Your task to perform on an android device: Clear all items from cart on newegg. Add bose soundsport free to the cart on newegg, then select checkout. Image 0: 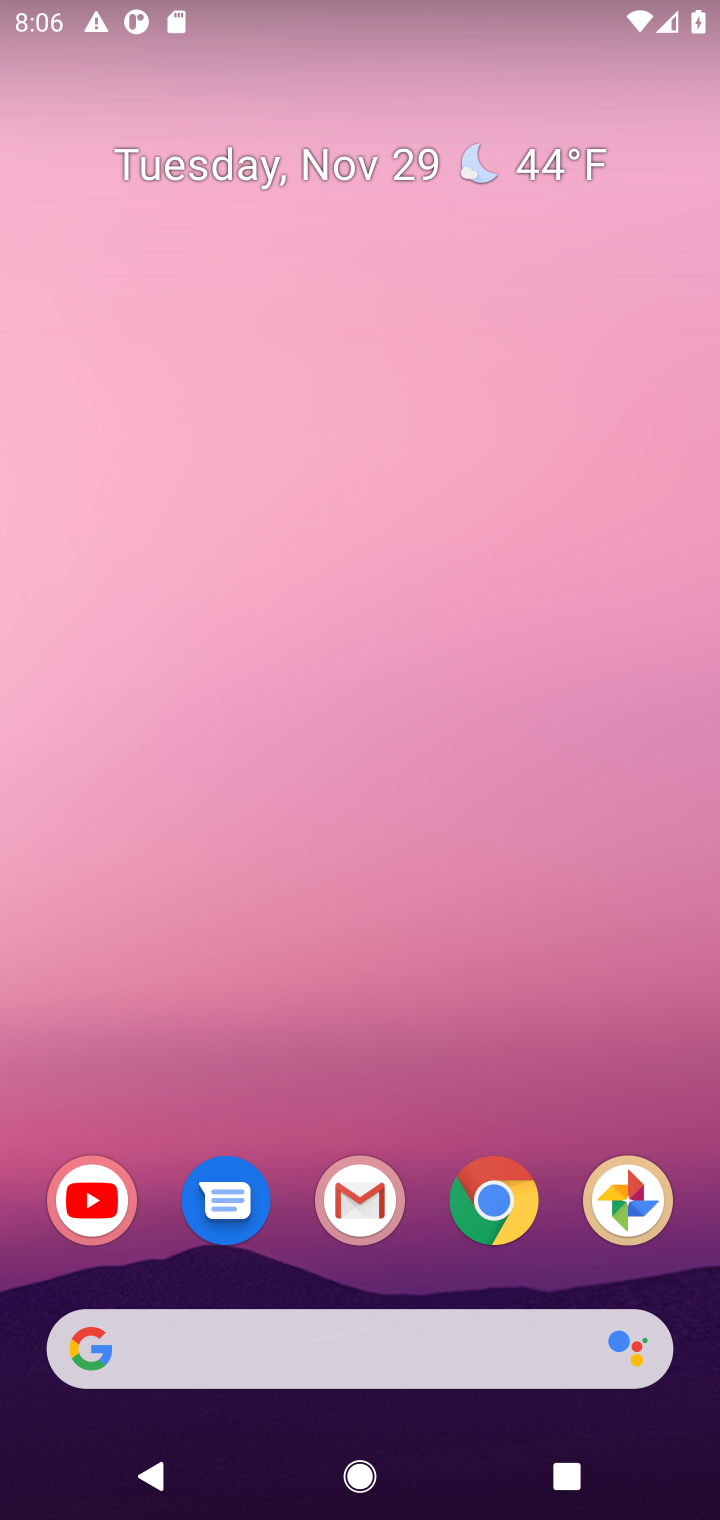
Step 0: click (335, 1370)
Your task to perform on an android device: Clear all items from cart on newegg. Add bose soundsport free to the cart on newegg, then select checkout. Image 1: 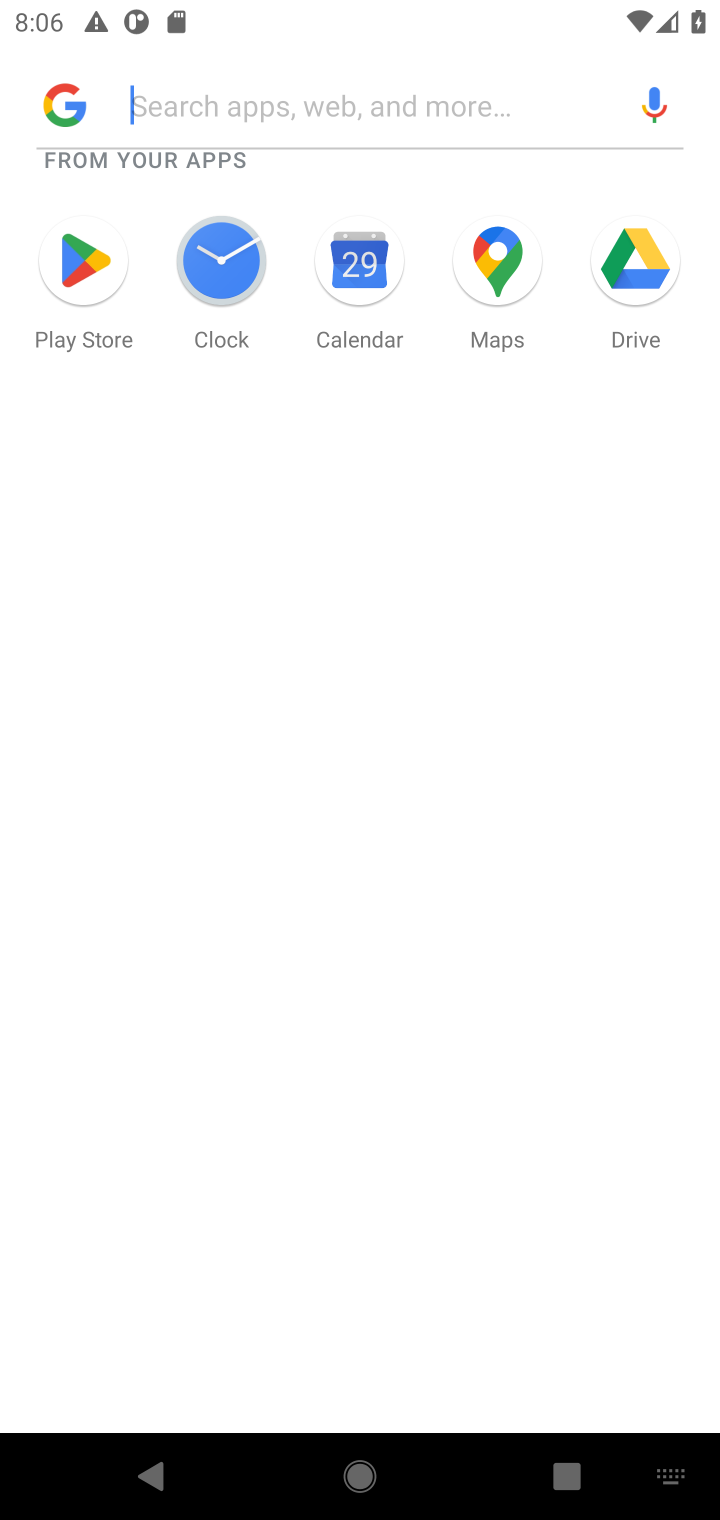
Step 1: press home button
Your task to perform on an android device: Clear all items from cart on newegg. Add bose soundsport free to the cart on newegg, then select checkout. Image 2: 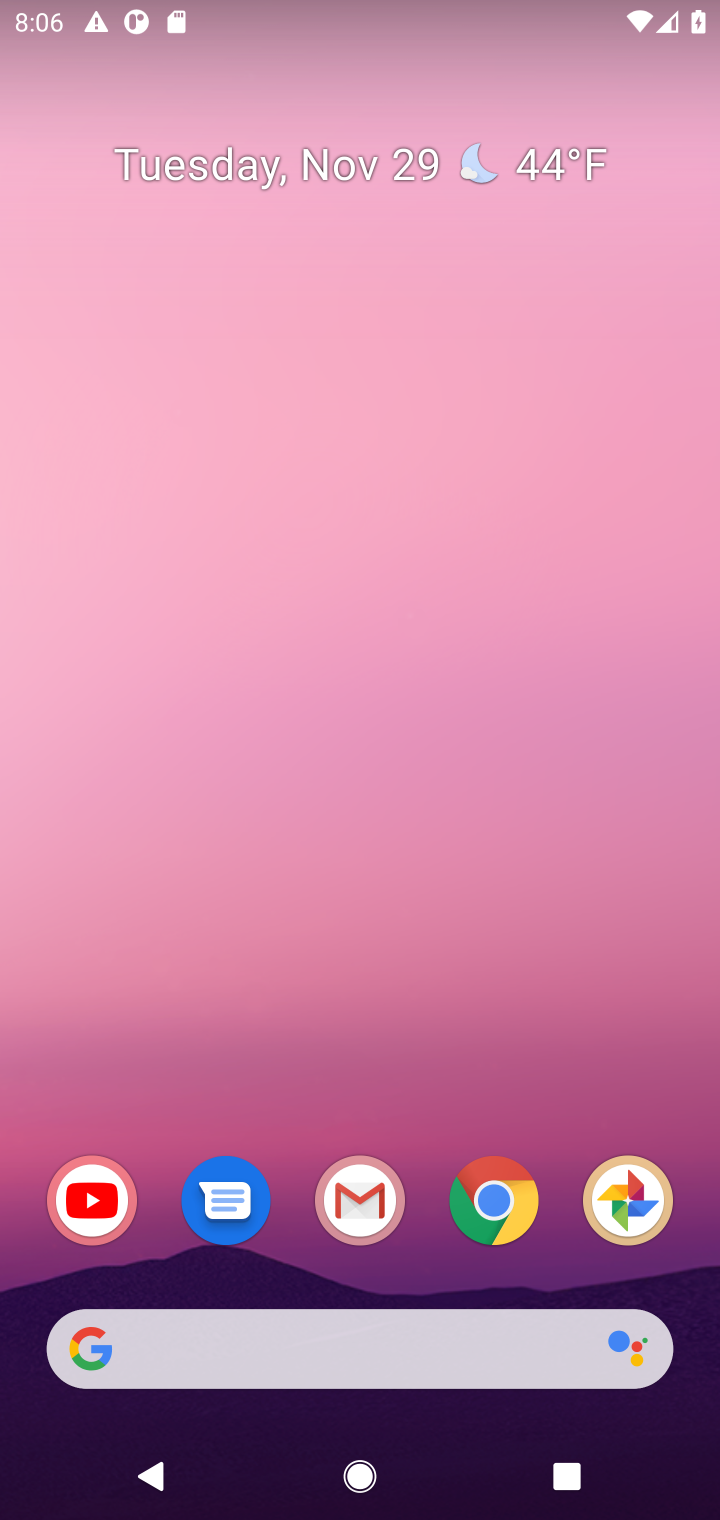
Step 2: click (502, 1216)
Your task to perform on an android device: Clear all items from cart on newegg. Add bose soundsport free to the cart on newegg, then select checkout. Image 3: 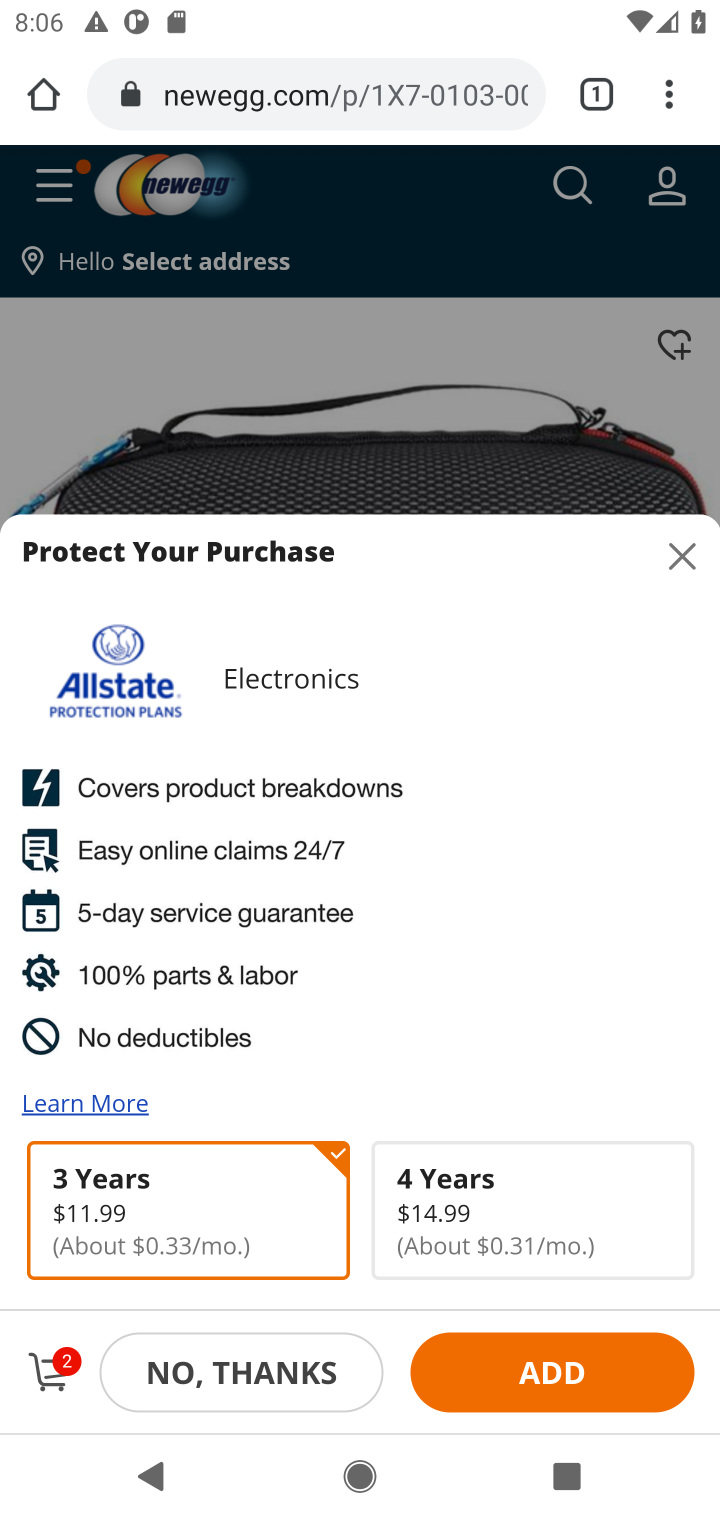
Step 3: click (671, 572)
Your task to perform on an android device: Clear all items from cart on newegg. Add bose soundsport free to the cart on newegg, then select checkout. Image 4: 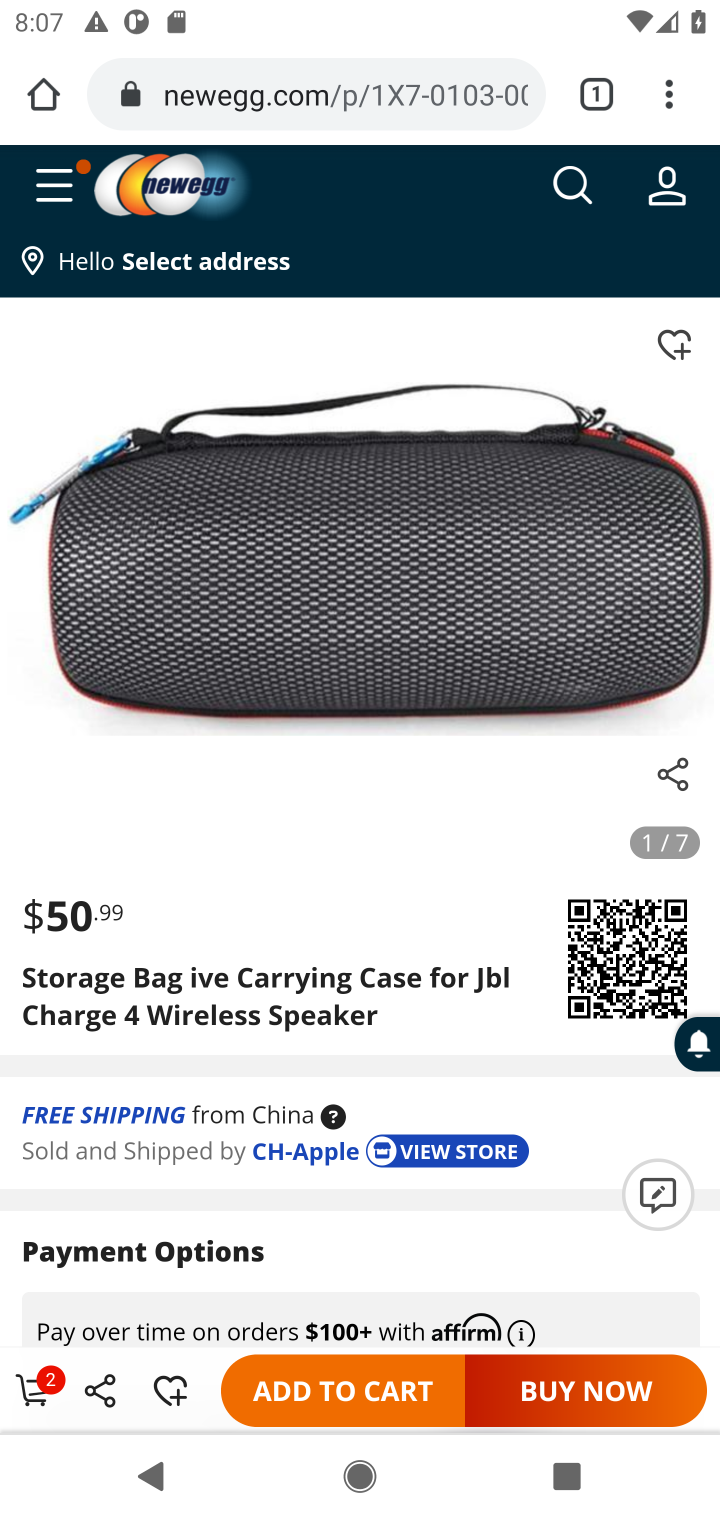
Step 4: click (574, 186)
Your task to perform on an android device: Clear all items from cart on newegg. Add bose soundsport free to the cart on newegg, then select checkout. Image 5: 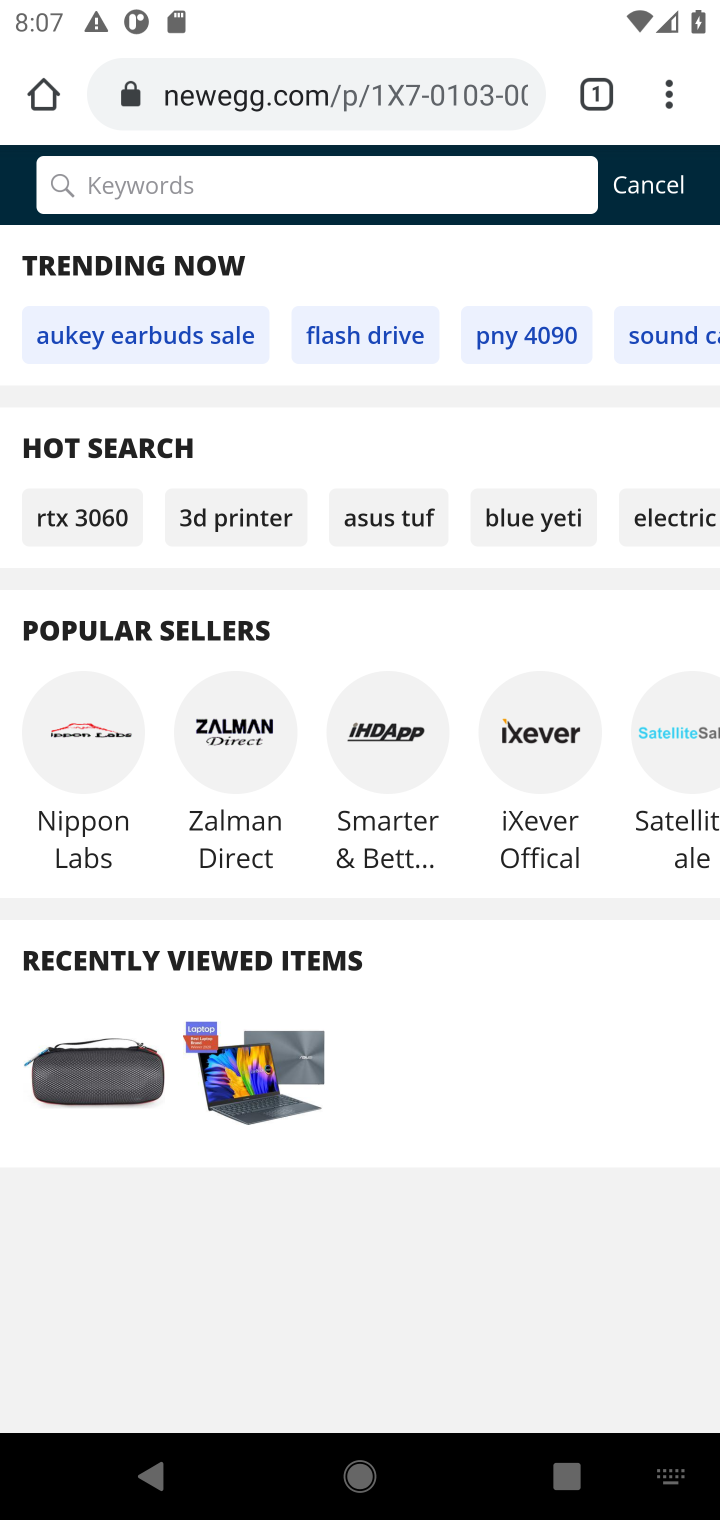
Step 5: type "newegg.com"
Your task to perform on an android device: Clear all items from cart on newegg. Add bose soundsport free to the cart on newegg, then select checkout. Image 6: 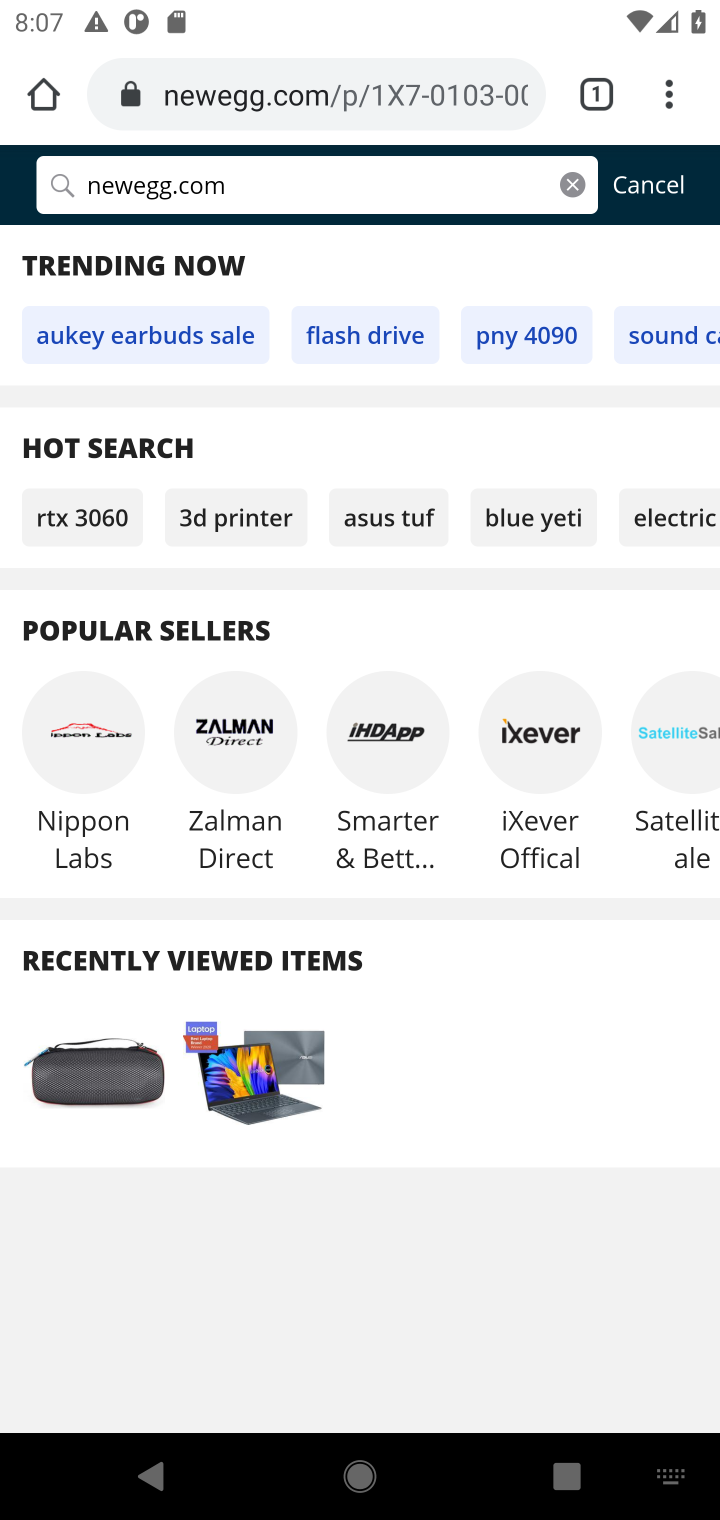
Step 6: click (565, 183)
Your task to perform on an android device: Clear all items from cart on newegg. Add bose soundsport free to the cart on newegg, then select checkout. Image 7: 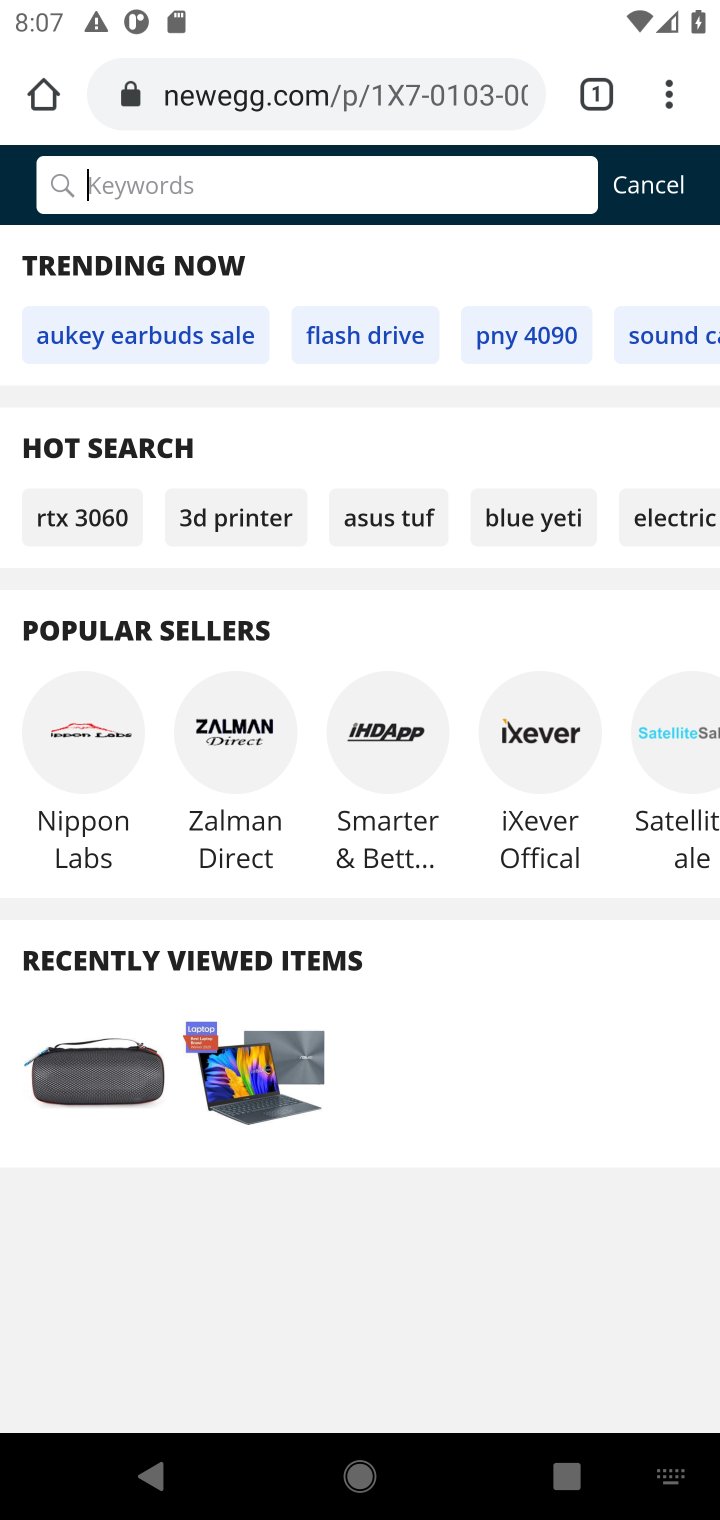
Step 7: type "bose soundsports"
Your task to perform on an android device: Clear all items from cart on newegg. Add bose soundsport free to the cart on newegg, then select checkout. Image 8: 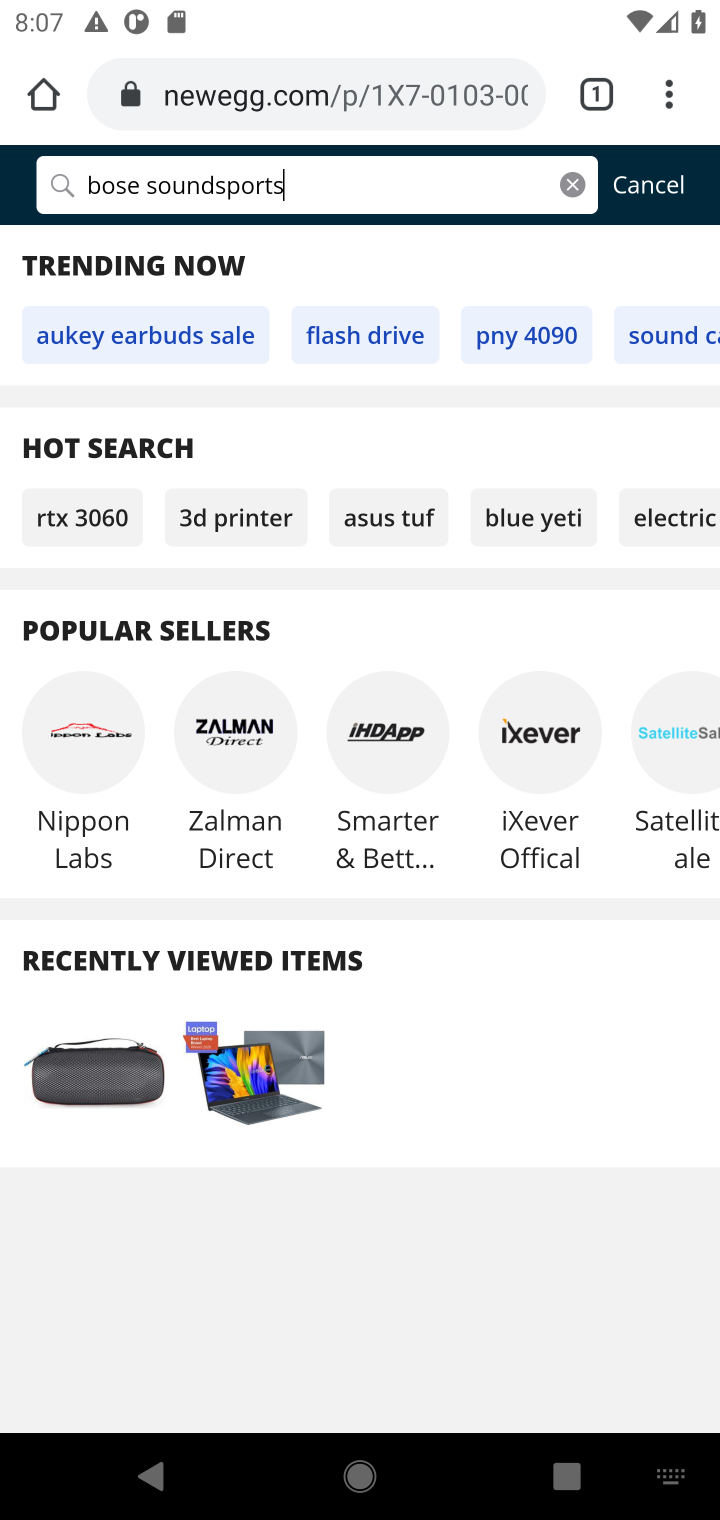
Step 8: click (413, 193)
Your task to perform on an android device: Clear all items from cart on newegg. Add bose soundsport free to the cart on newegg, then select checkout. Image 9: 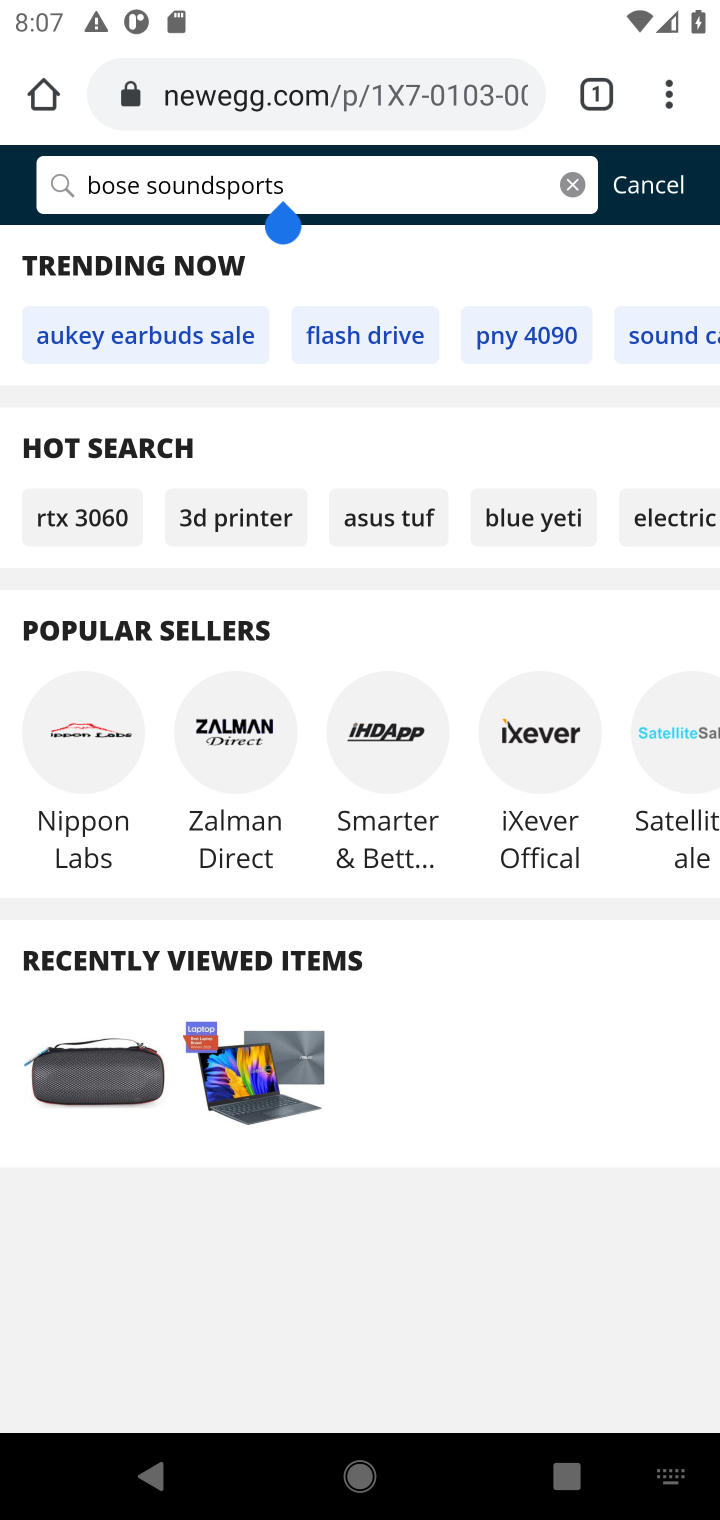
Step 9: task complete